Your task to perform on an android device: Search for Italian restaurants on Maps Image 0: 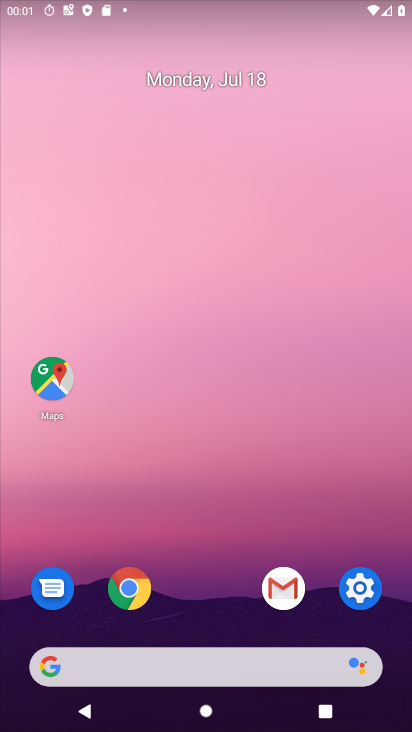
Step 0: press home button
Your task to perform on an android device: Search for Italian restaurants on Maps Image 1: 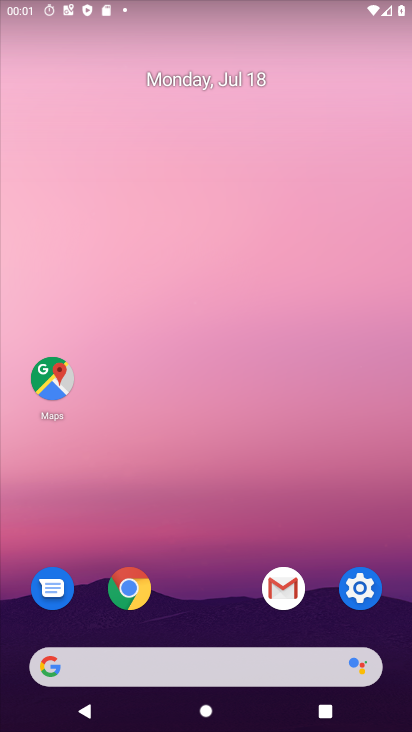
Step 1: click (53, 354)
Your task to perform on an android device: Search for Italian restaurants on Maps Image 2: 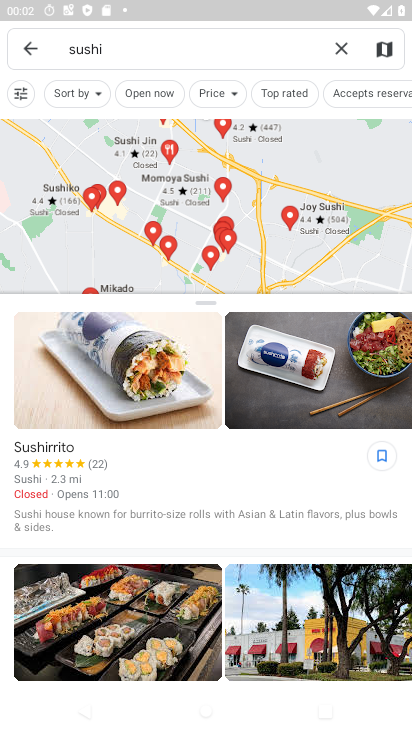
Step 2: click (337, 51)
Your task to perform on an android device: Search for Italian restaurants on Maps Image 3: 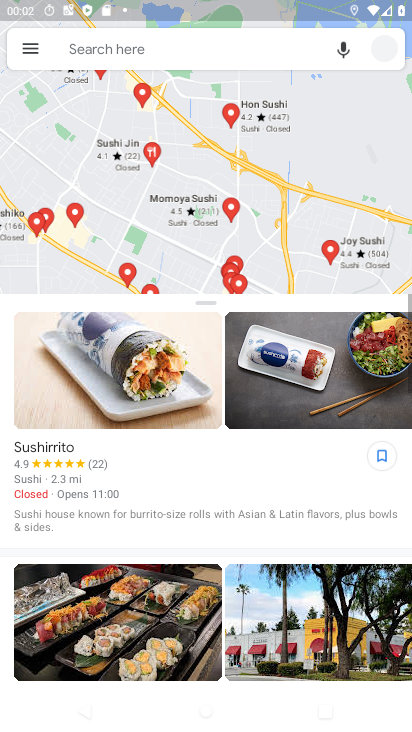
Step 3: click (160, 50)
Your task to perform on an android device: Search for Italian restaurants on Maps Image 4: 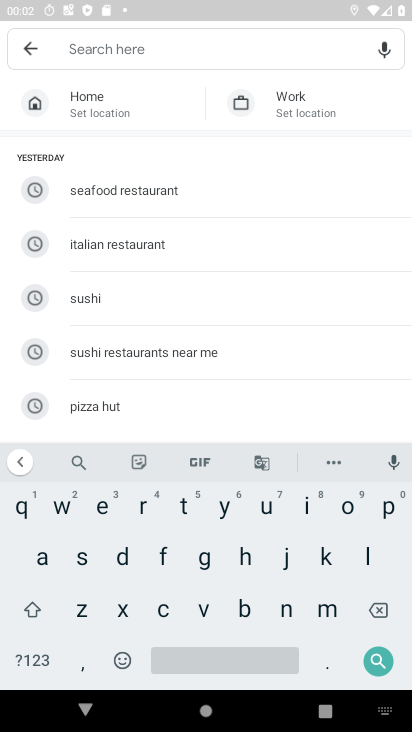
Step 4: click (110, 237)
Your task to perform on an android device: Search for Italian restaurants on Maps Image 5: 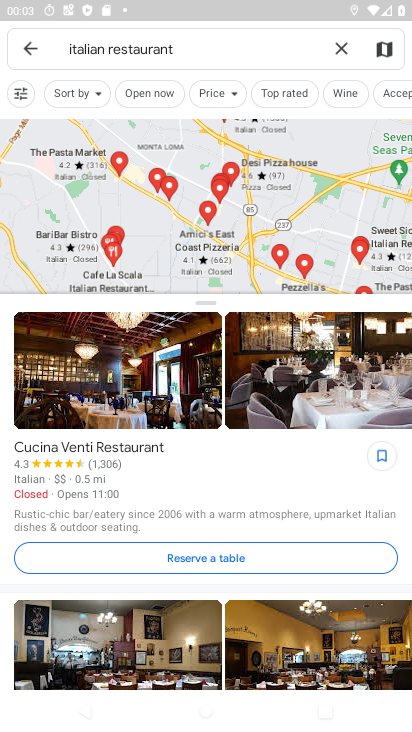
Step 5: task complete